Your task to perform on an android device: remove spam from my inbox in the gmail app Image 0: 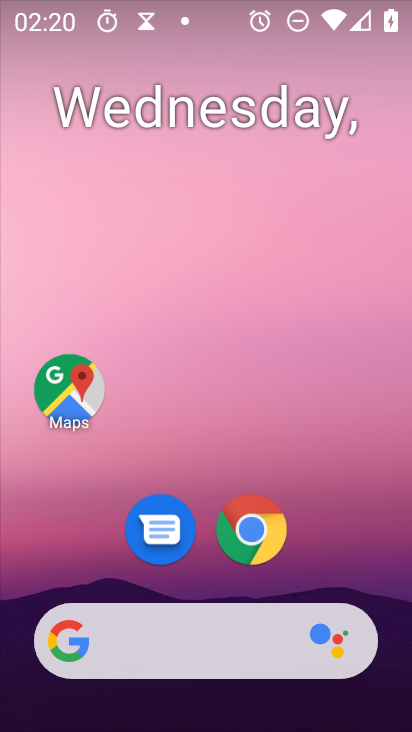
Step 0: drag from (268, 610) to (330, 4)
Your task to perform on an android device: remove spam from my inbox in the gmail app Image 1: 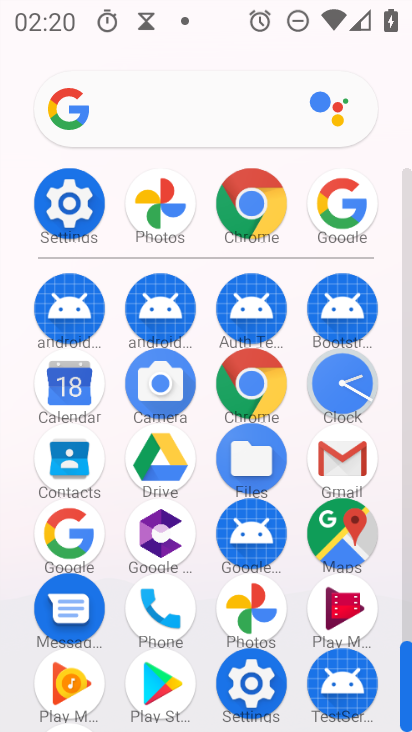
Step 1: click (359, 446)
Your task to perform on an android device: remove spam from my inbox in the gmail app Image 2: 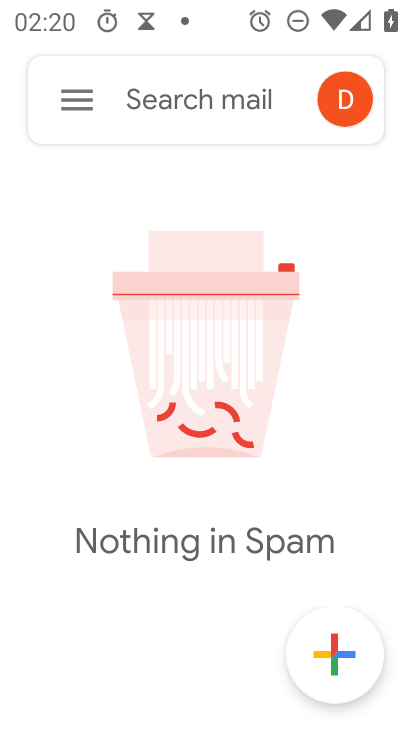
Step 2: click (74, 100)
Your task to perform on an android device: remove spam from my inbox in the gmail app Image 3: 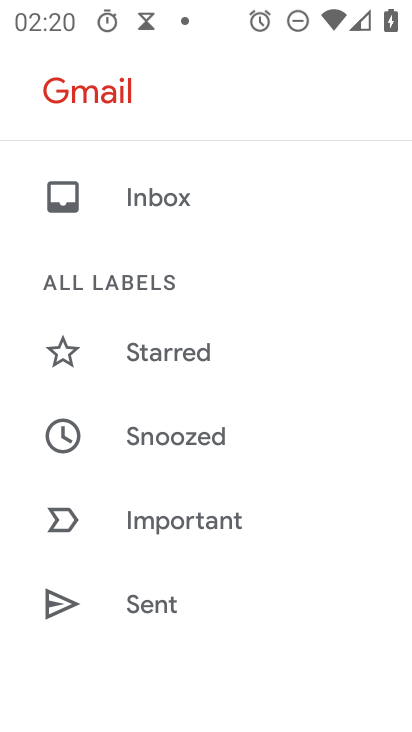
Step 3: drag from (224, 612) to (180, 93)
Your task to perform on an android device: remove spam from my inbox in the gmail app Image 4: 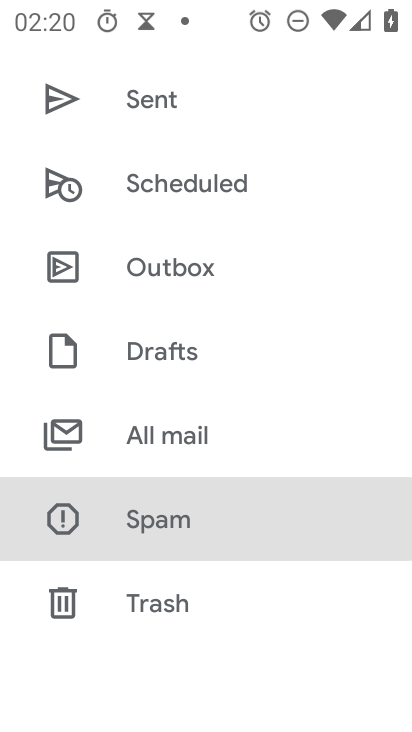
Step 4: click (169, 529)
Your task to perform on an android device: remove spam from my inbox in the gmail app Image 5: 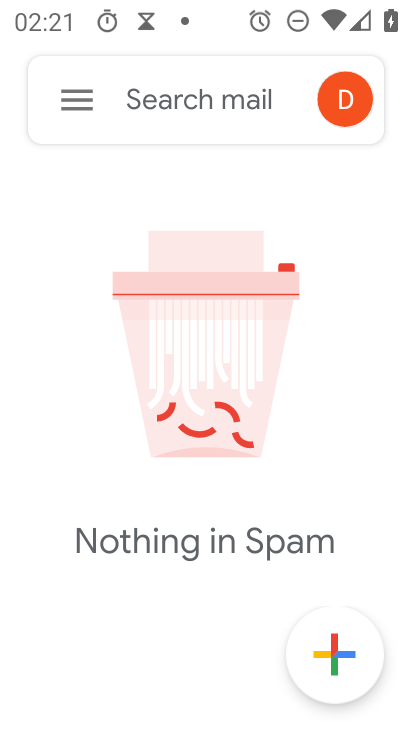
Step 5: task complete